Your task to perform on an android device: add a contact in the contacts app Image 0: 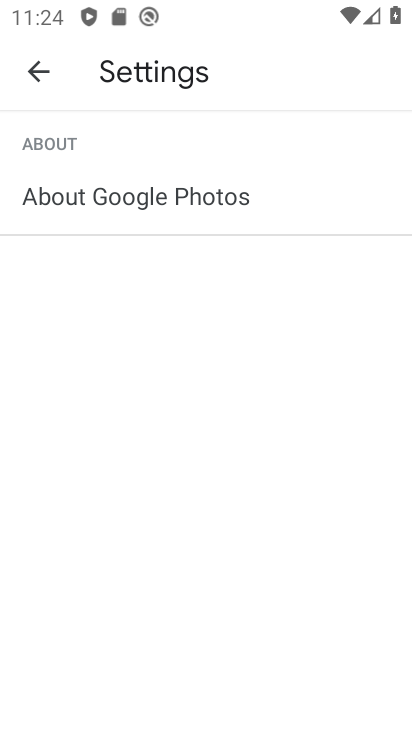
Step 0: press home button
Your task to perform on an android device: add a contact in the contacts app Image 1: 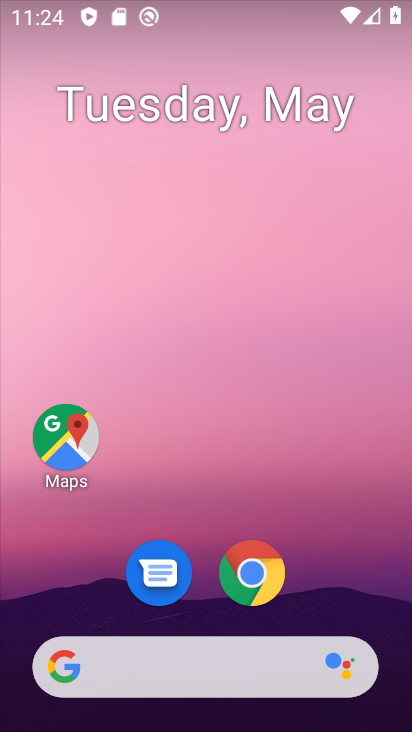
Step 1: drag from (205, 617) to (205, 142)
Your task to perform on an android device: add a contact in the contacts app Image 2: 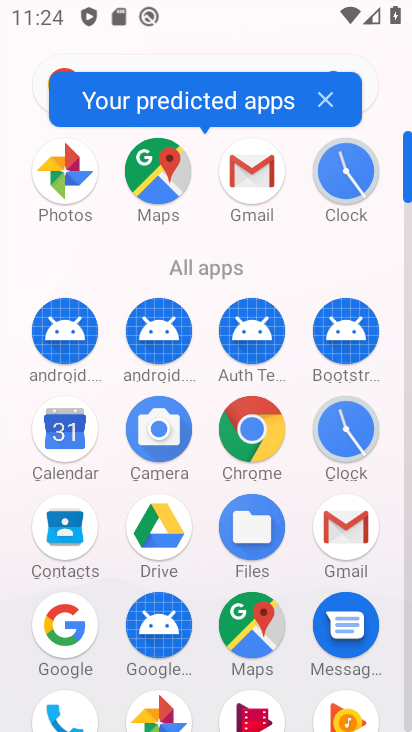
Step 2: click (72, 520)
Your task to perform on an android device: add a contact in the contacts app Image 3: 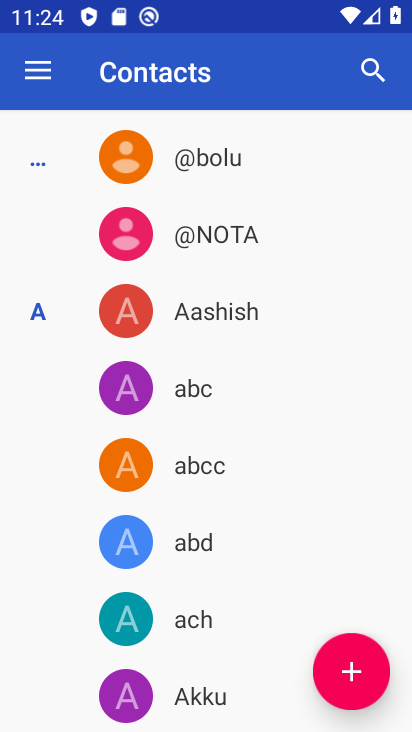
Step 3: click (331, 671)
Your task to perform on an android device: add a contact in the contacts app Image 4: 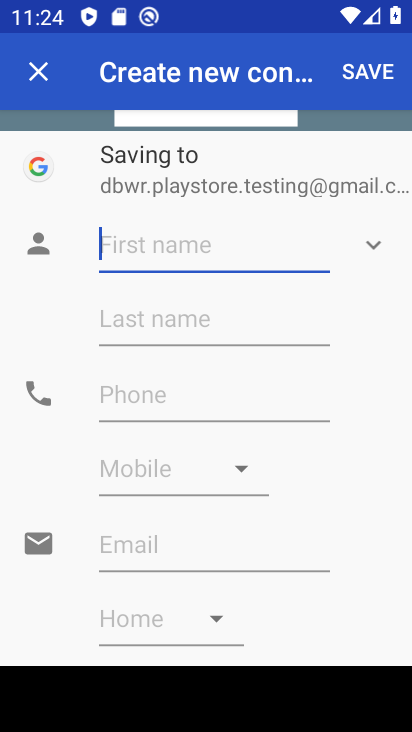
Step 4: type "fdgfdgfdg"
Your task to perform on an android device: add a contact in the contacts app Image 5: 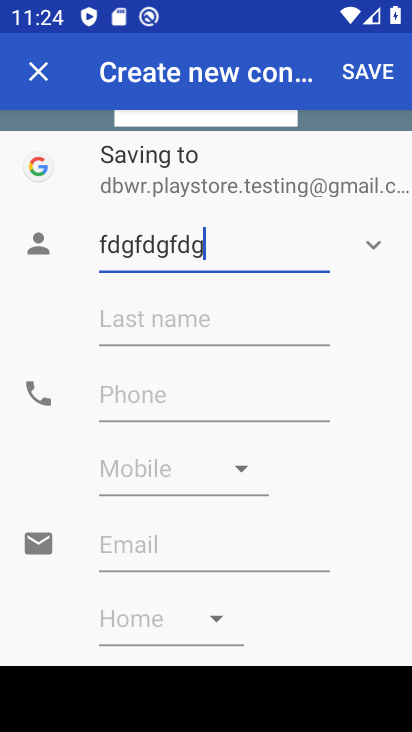
Step 5: click (99, 400)
Your task to perform on an android device: add a contact in the contacts app Image 6: 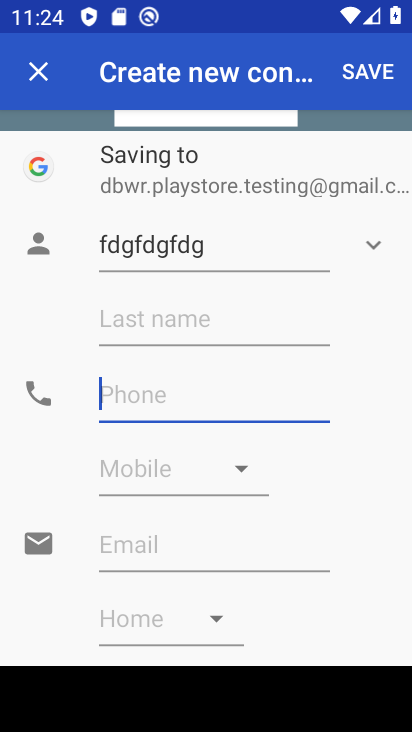
Step 6: type "976865757"
Your task to perform on an android device: add a contact in the contacts app Image 7: 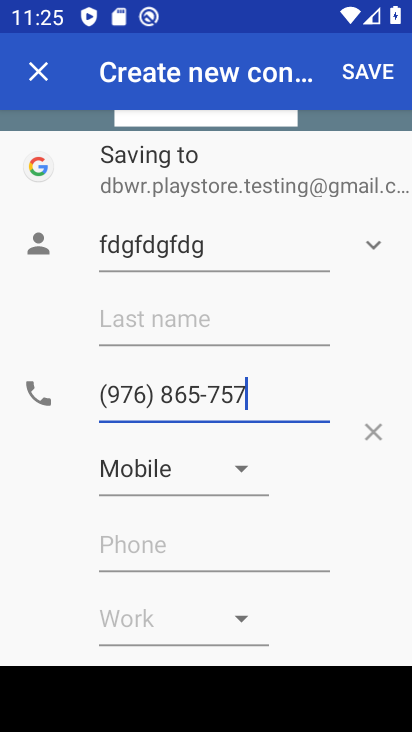
Step 7: click (366, 74)
Your task to perform on an android device: add a contact in the contacts app Image 8: 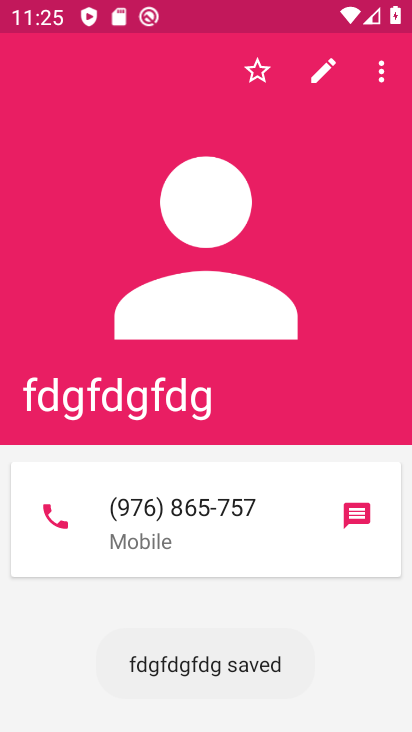
Step 8: task complete